Your task to perform on an android device: add a label to a message in the gmail app Image 0: 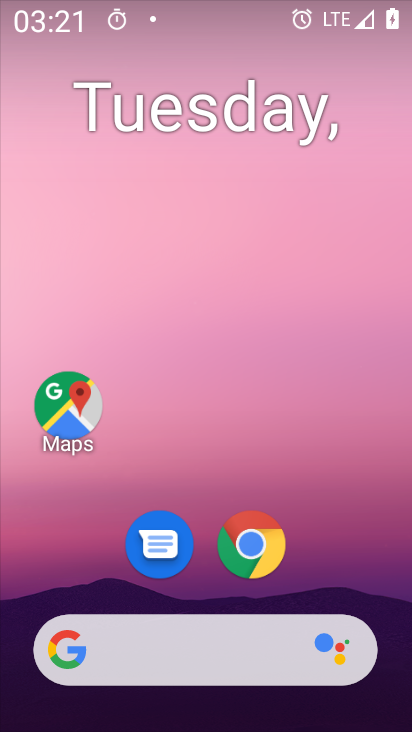
Step 0: drag from (314, 526) to (224, 19)
Your task to perform on an android device: add a label to a message in the gmail app Image 1: 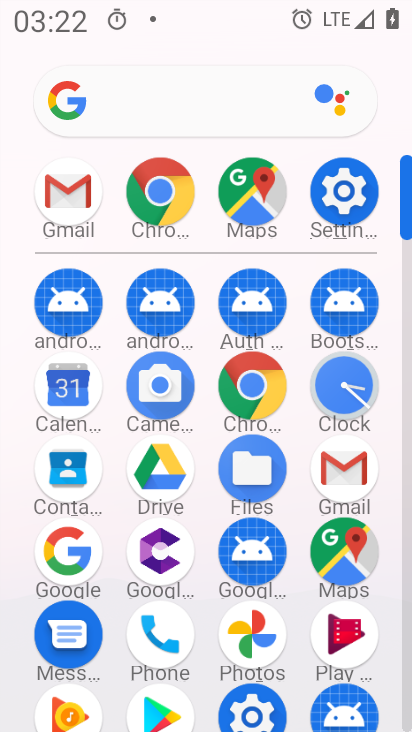
Step 1: drag from (13, 581) to (11, 249)
Your task to perform on an android device: add a label to a message in the gmail app Image 2: 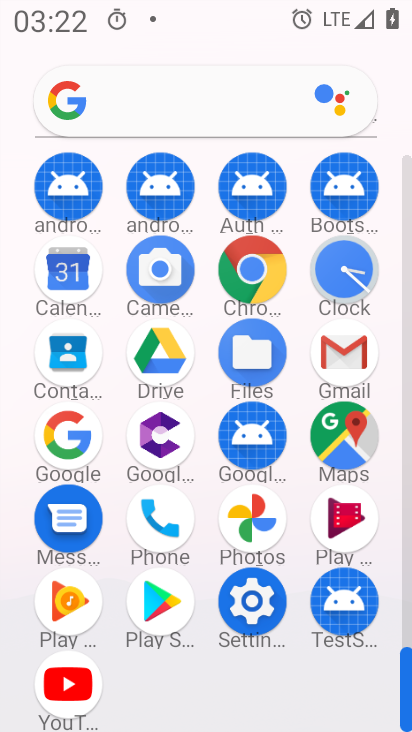
Step 2: click (344, 345)
Your task to perform on an android device: add a label to a message in the gmail app Image 3: 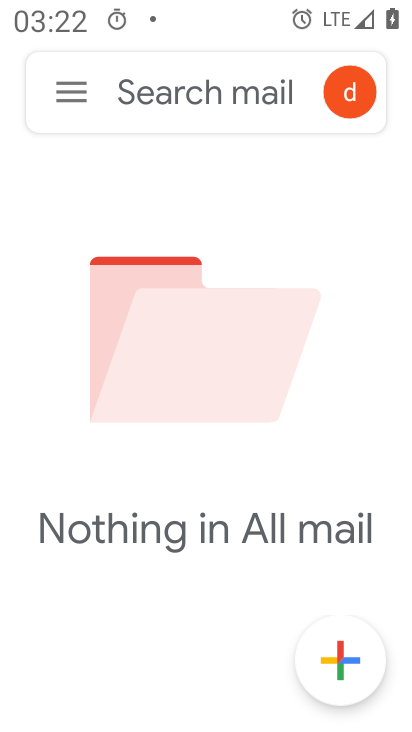
Step 3: click (67, 88)
Your task to perform on an android device: add a label to a message in the gmail app Image 4: 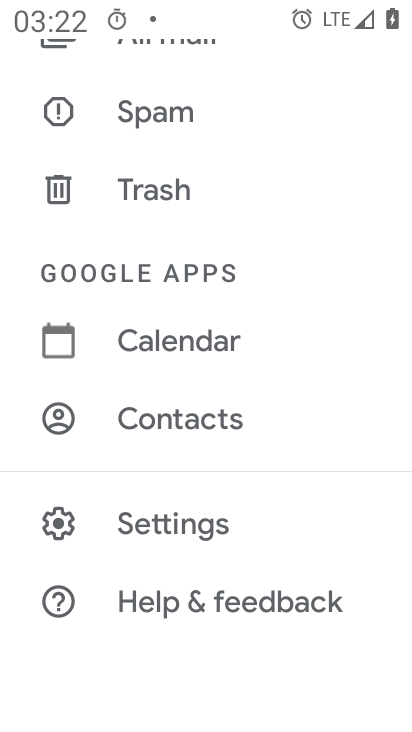
Step 4: drag from (263, 150) to (237, 588)
Your task to perform on an android device: add a label to a message in the gmail app Image 5: 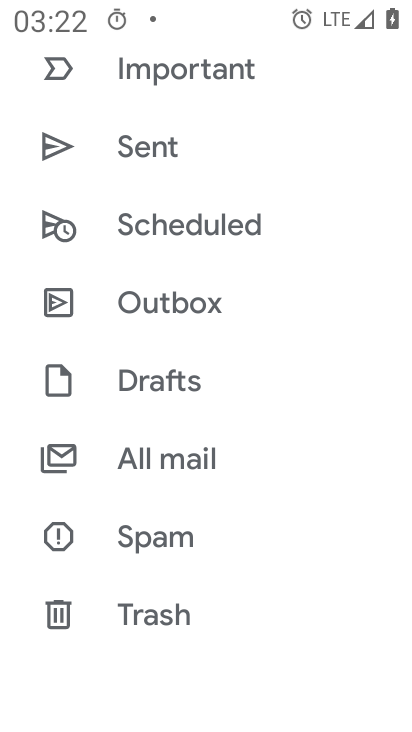
Step 5: click (200, 435)
Your task to perform on an android device: add a label to a message in the gmail app Image 6: 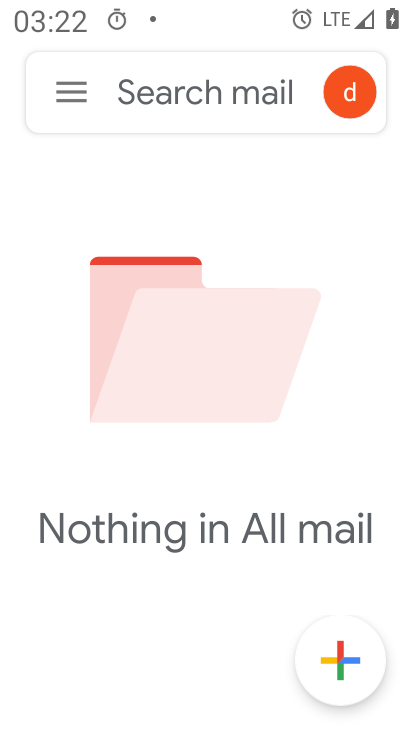
Step 6: click (68, 74)
Your task to perform on an android device: add a label to a message in the gmail app Image 7: 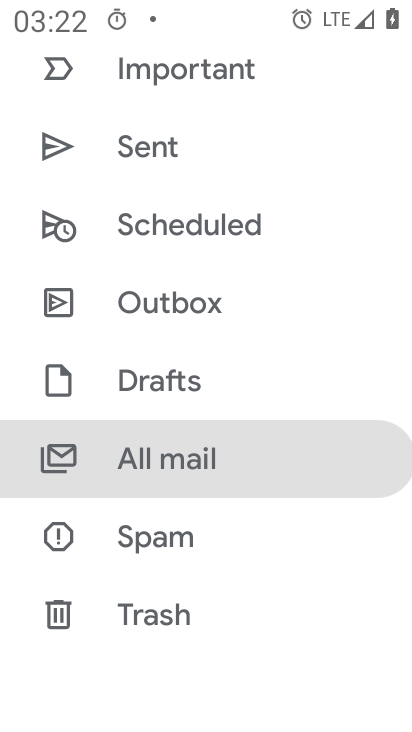
Step 7: drag from (294, 228) to (281, 584)
Your task to perform on an android device: add a label to a message in the gmail app Image 8: 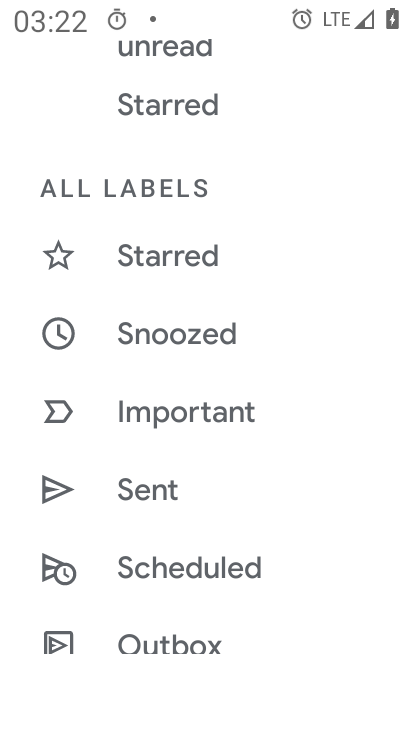
Step 8: drag from (245, 116) to (269, 569)
Your task to perform on an android device: add a label to a message in the gmail app Image 9: 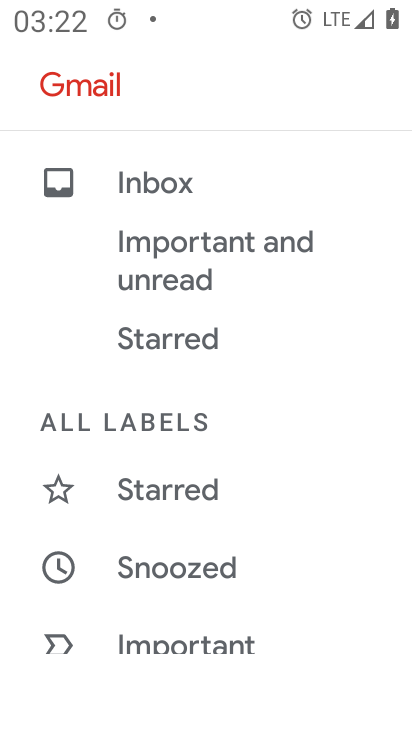
Step 9: click (176, 175)
Your task to perform on an android device: add a label to a message in the gmail app Image 10: 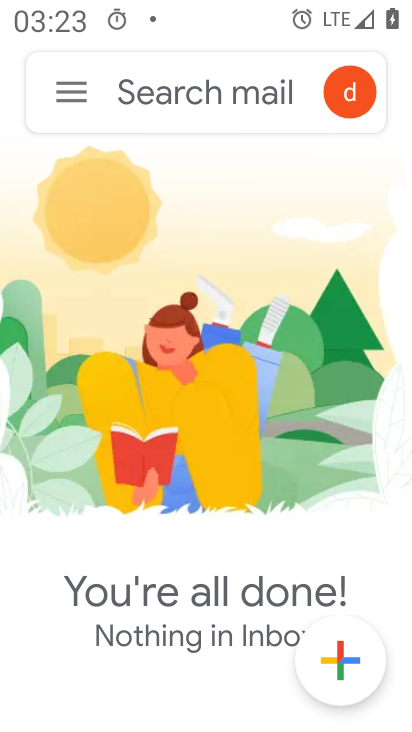
Step 10: click (65, 82)
Your task to perform on an android device: add a label to a message in the gmail app Image 11: 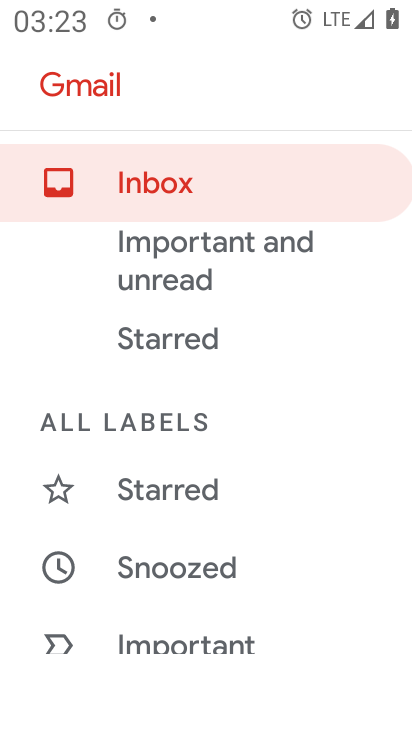
Step 11: task complete